Your task to perform on an android device: Open Youtube and go to "Your channel" Image 0: 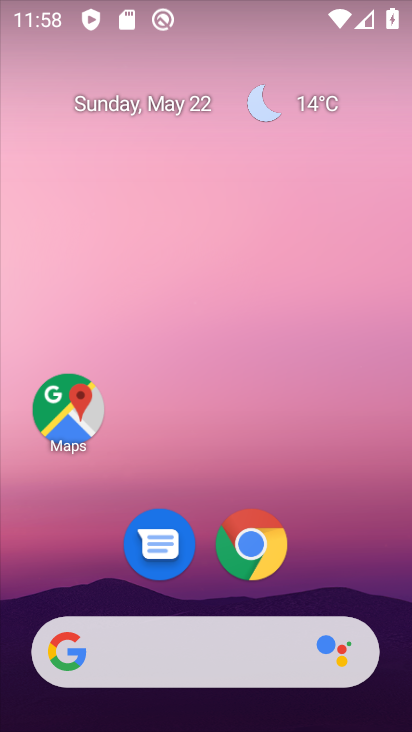
Step 0: drag from (325, 541) to (293, 117)
Your task to perform on an android device: Open Youtube and go to "Your channel" Image 1: 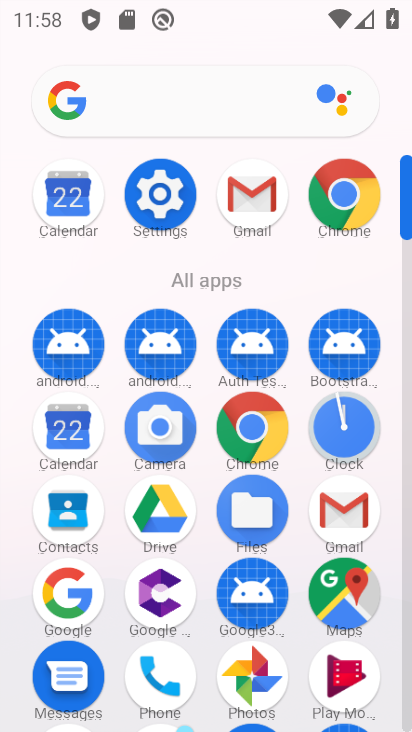
Step 1: drag from (311, 411) to (324, 216)
Your task to perform on an android device: Open Youtube and go to "Your channel" Image 2: 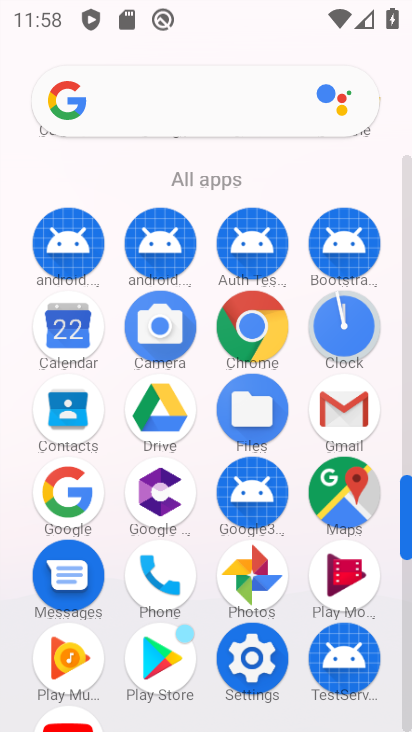
Step 2: drag from (220, 625) to (233, 383)
Your task to perform on an android device: Open Youtube and go to "Your channel" Image 3: 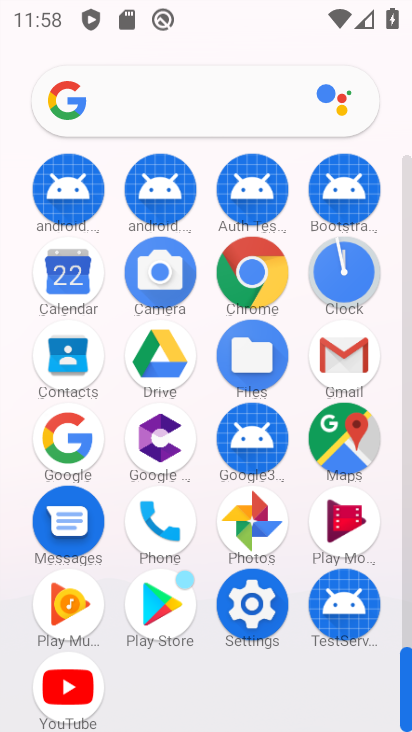
Step 3: click (73, 672)
Your task to perform on an android device: Open Youtube and go to "Your channel" Image 4: 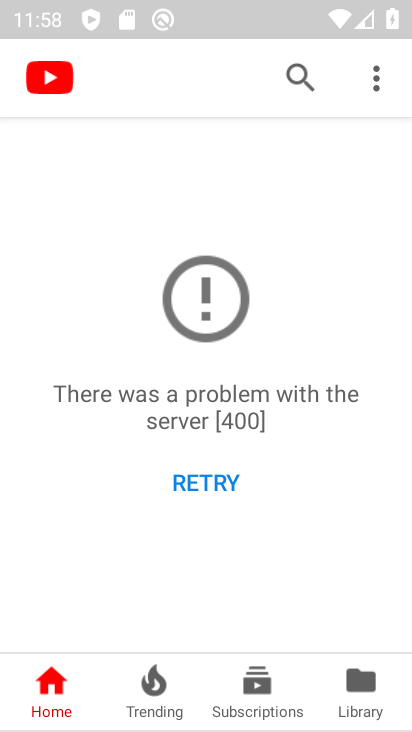
Step 4: click (210, 480)
Your task to perform on an android device: Open Youtube and go to "Your channel" Image 5: 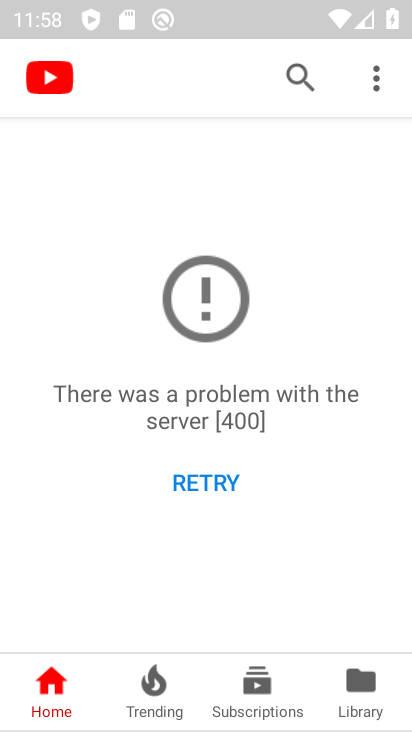
Step 5: click (211, 481)
Your task to perform on an android device: Open Youtube and go to "Your channel" Image 6: 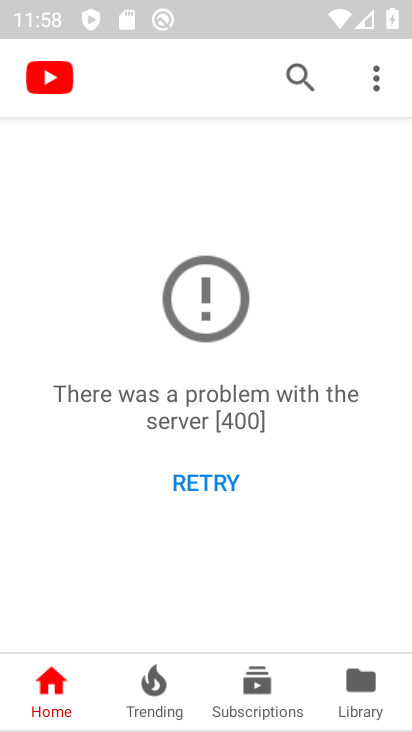
Step 6: click (211, 481)
Your task to perform on an android device: Open Youtube and go to "Your channel" Image 7: 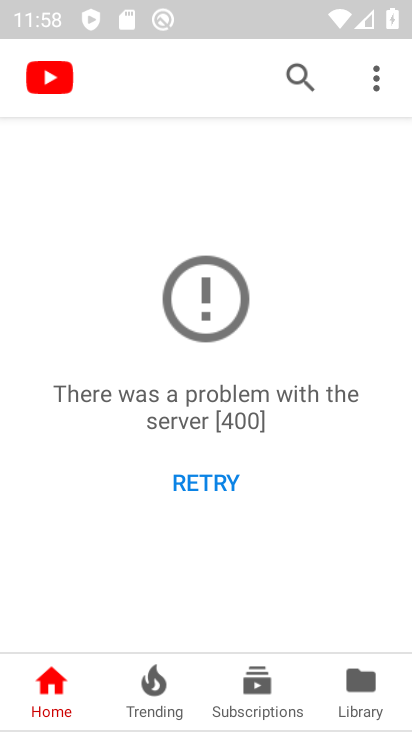
Step 7: click (379, 85)
Your task to perform on an android device: Open Youtube and go to "Your channel" Image 8: 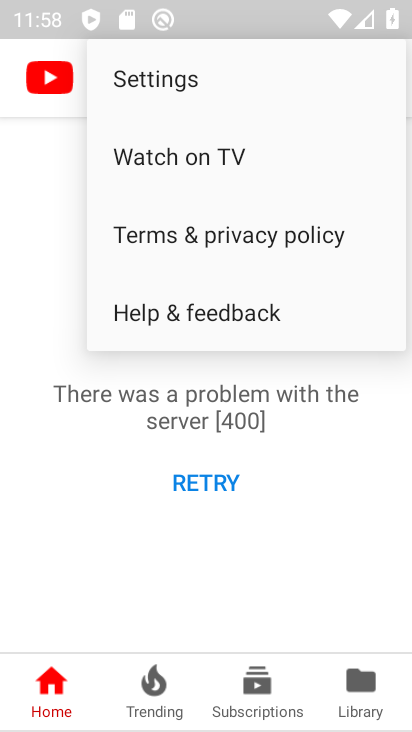
Step 8: click (234, 484)
Your task to perform on an android device: Open Youtube and go to "Your channel" Image 9: 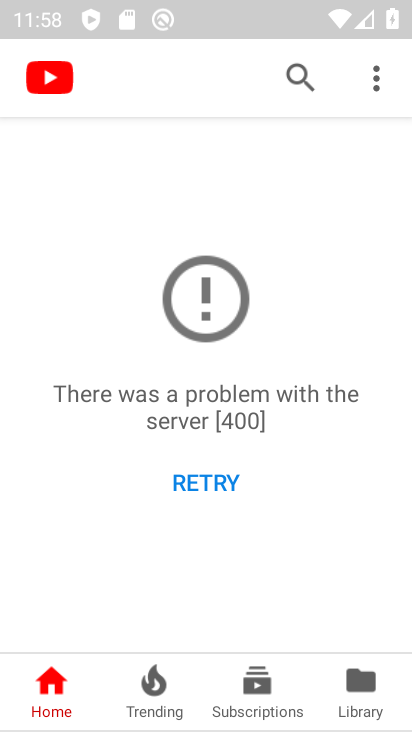
Step 9: click (381, 705)
Your task to perform on an android device: Open Youtube and go to "Your channel" Image 10: 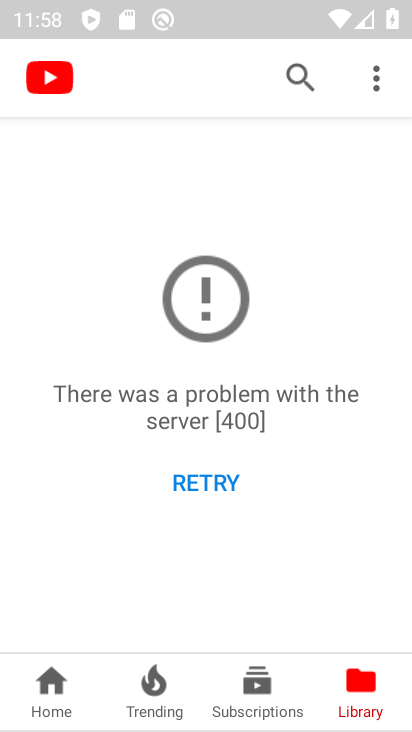
Step 10: task complete